Your task to perform on an android device: Open Reddit.com Image 0: 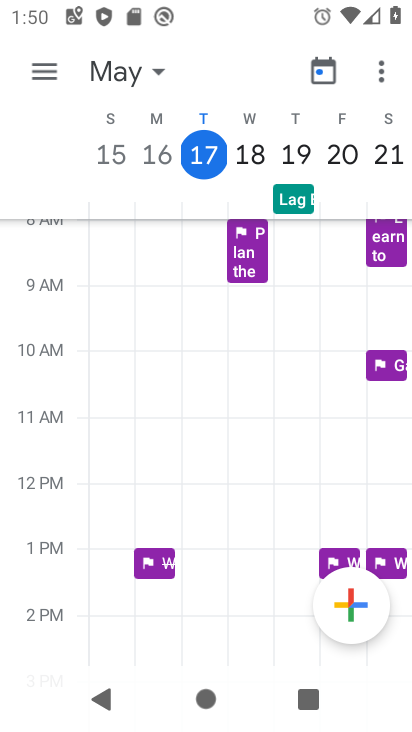
Step 0: press home button
Your task to perform on an android device: Open Reddit.com Image 1: 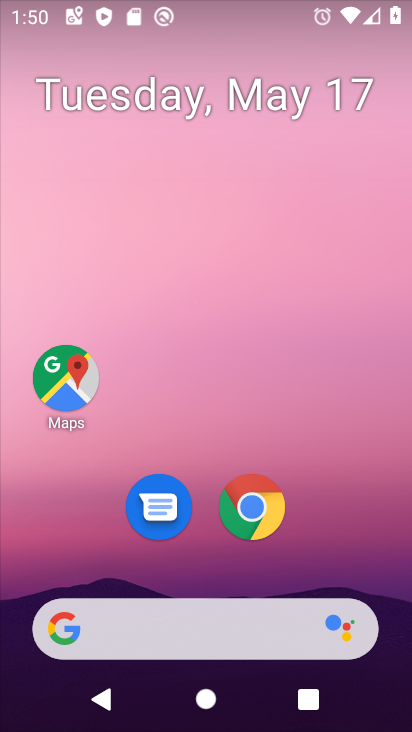
Step 1: click (246, 498)
Your task to perform on an android device: Open Reddit.com Image 2: 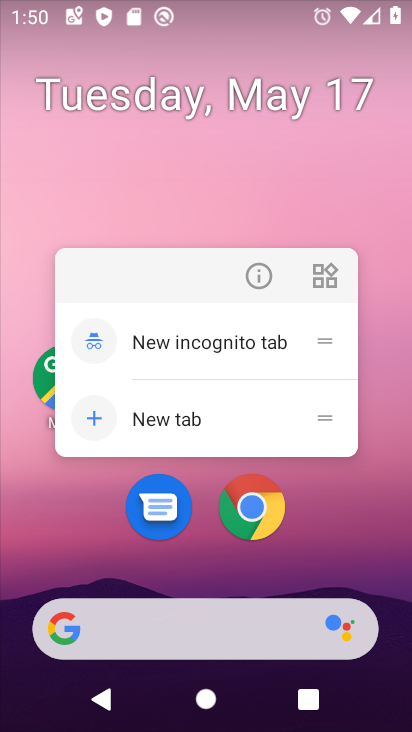
Step 2: click (260, 503)
Your task to perform on an android device: Open Reddit.com Image 3: 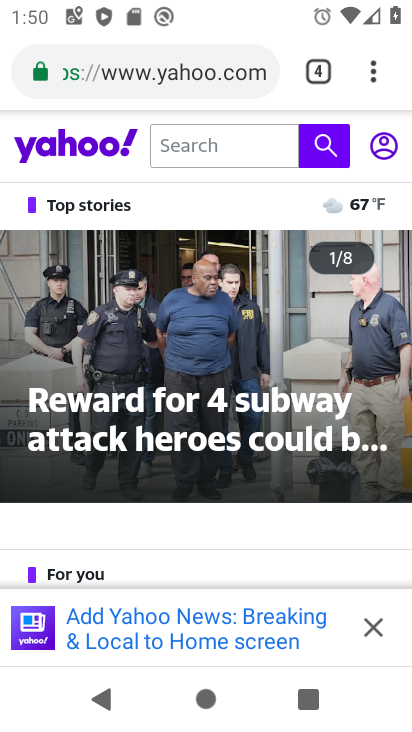
Step 3: click (310, 72)
Your task to perform on an android device: Open Reddit.com Image 4: 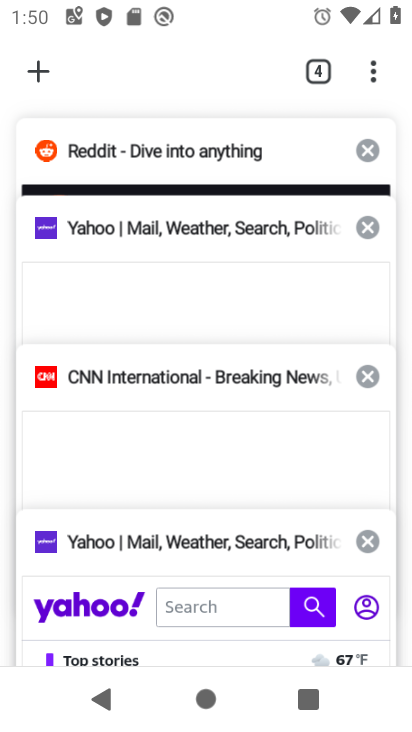
Step 4: click (127, 145)
Your task to perform on an android device: Open Reddit.com Image 5: 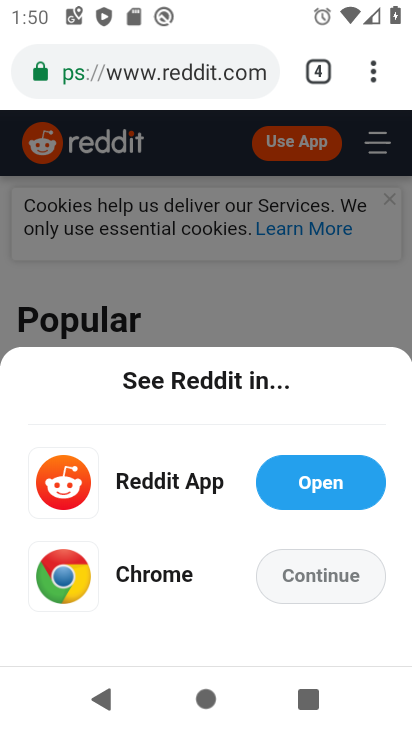
Step 5: task complete